Your task to perform on an android device: Go to Amazon Image 0: 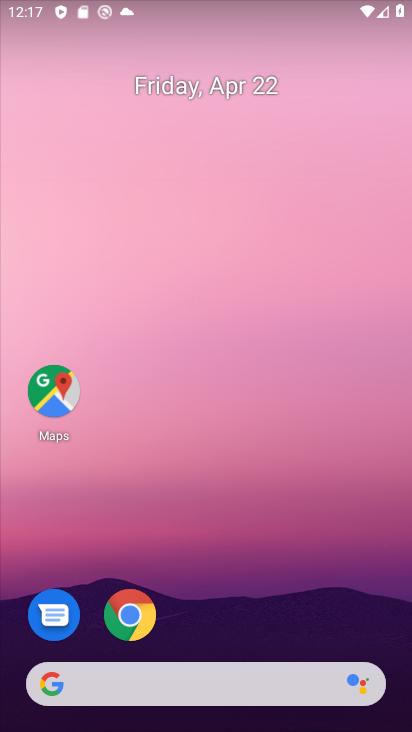
Step 0: click (118, 624)
Your task to perform on an android device: Go to Amazon Image 1: 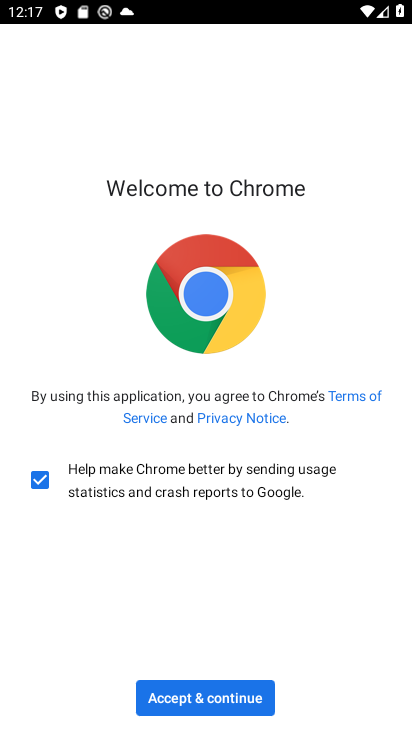
Step 1: click (212, 703)
Your task to perform on an android device: Go to Amazon Image 2: 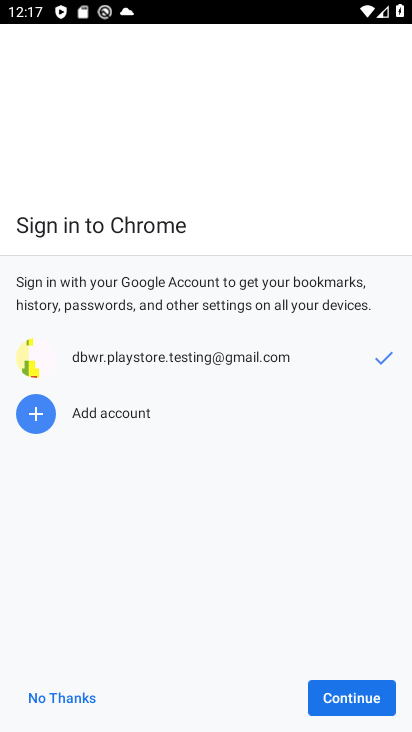
Step 2: click (72, 703)
Your task to perform on an android device: Go to Amazon Image 3: 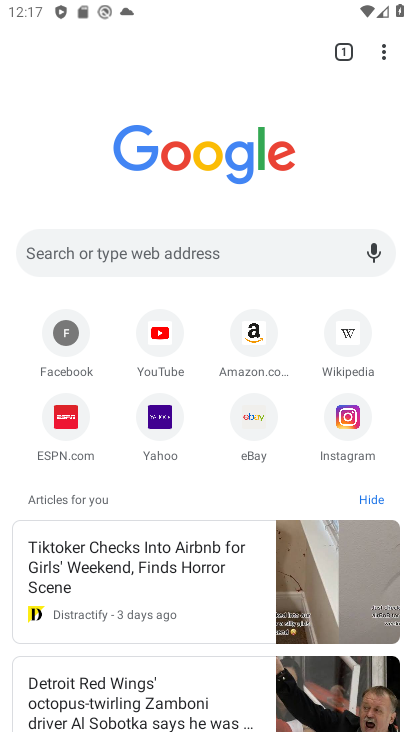
Step 3: click (258, 331)
Your task to perform on an android device: Go to Amazon Image 4: 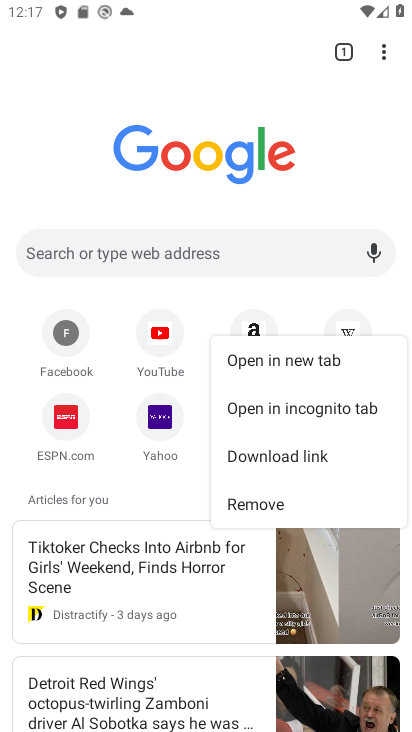
Step 4: click (256, 325)
Your task to perform on an android device: Go to Amazon Image 5: 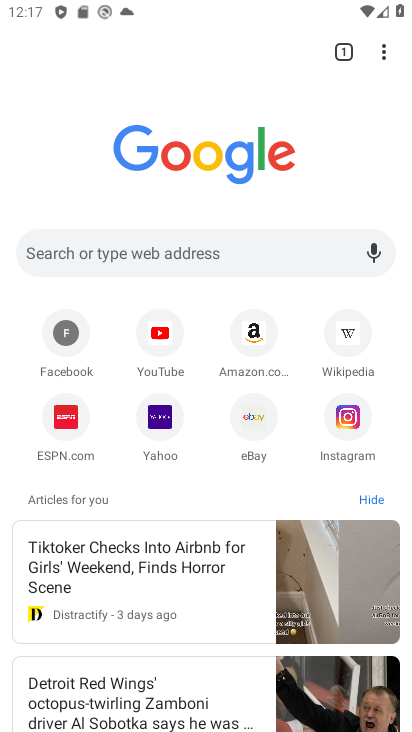
Step 5: click (256, 325)
Your task to perform on an android device: Go to Amazon Image 6: 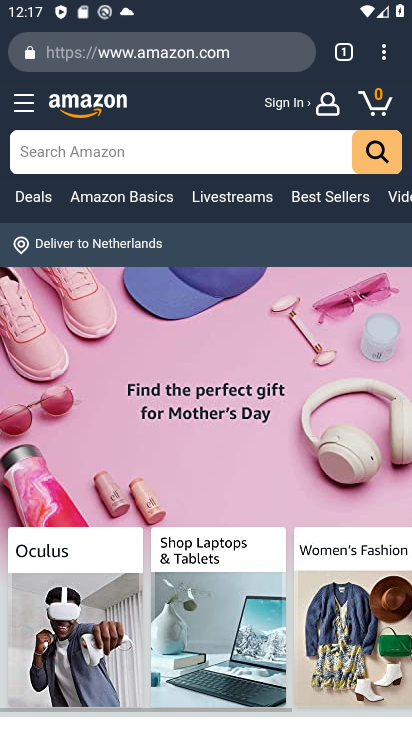
Step 6: task complete